Your task to perform on an android device: toggle translation in the chrome app Image 0: 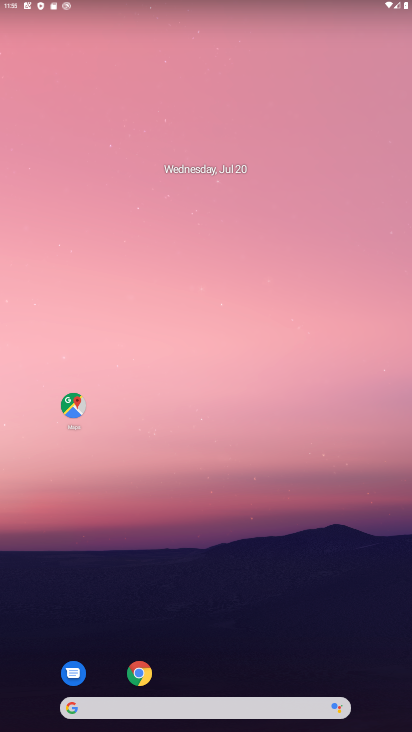
Step 0: click (145, 672)
Your task to perform on an android device: toggle translation in the chrome app Image 1: 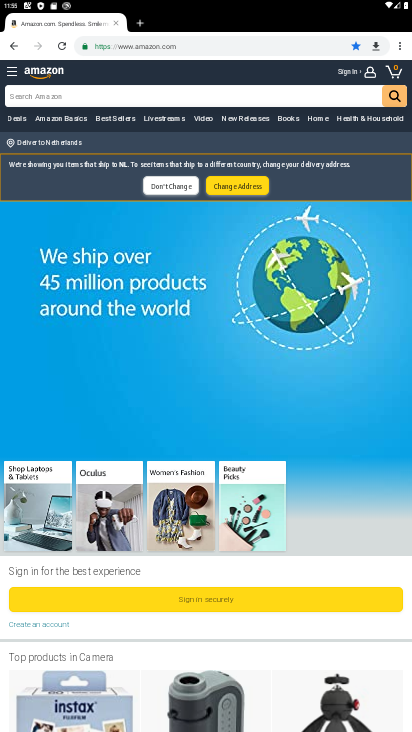
Step 1: click (394, 52)
Your task to perform on an android device: toggle translation in the chrome app Image 2: 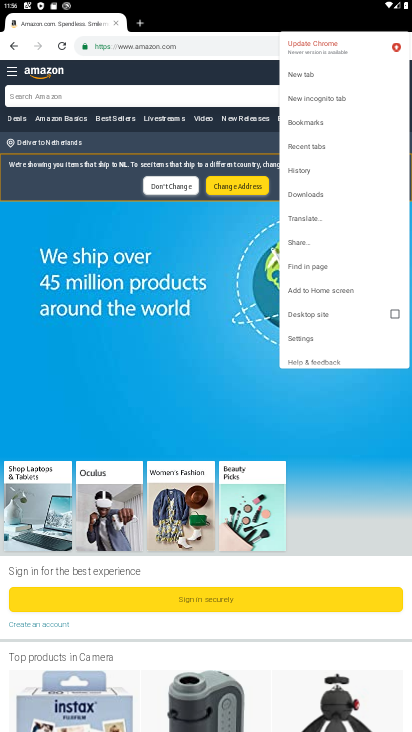
Step 2: click (303, 342)
Your task to perform on an android device: toggle translation in the chrome app Image 3: 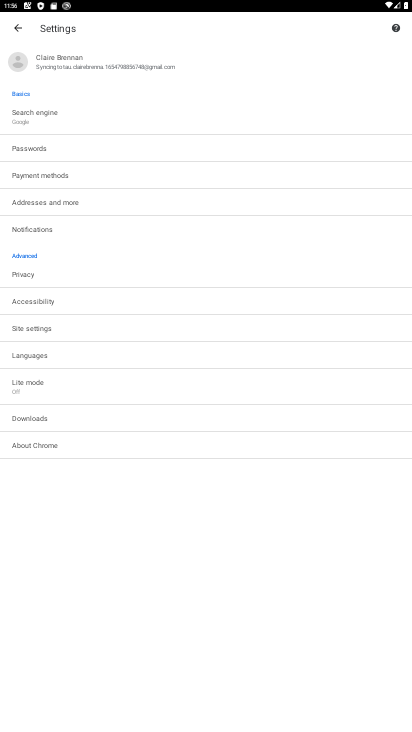
Step 3: click (32, 354)
Your task to perform on an android device: toggle translation in the chrome app Image 4: 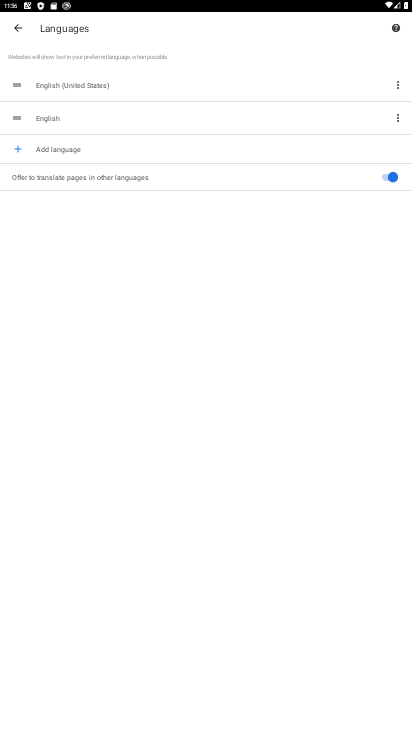
Step 4: click (387, 172)
Your task to perform on an android device: toggle translation in the chrome app Image 5: 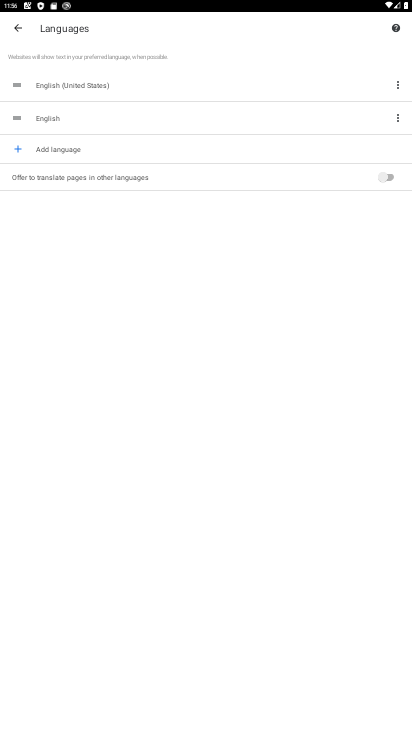
Step 5: task complete